Your task to perform on an android device: make emails show in primary in the gmail app Image 0: 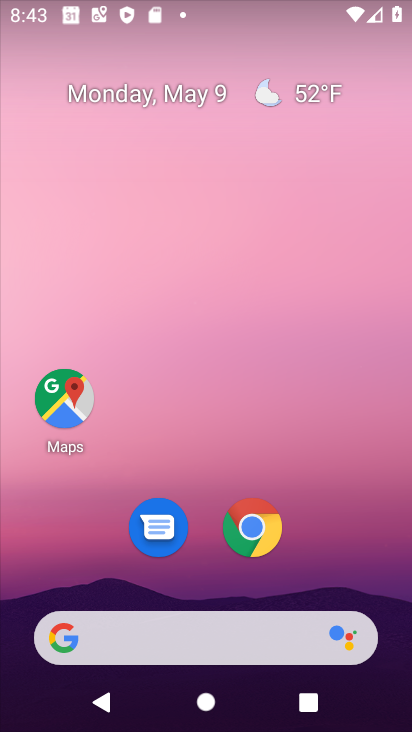
Step 0: drag from (202, 567) to (219, 77)
Your task to perform on an android device: make emails show in primary in the gmail app Image 1: 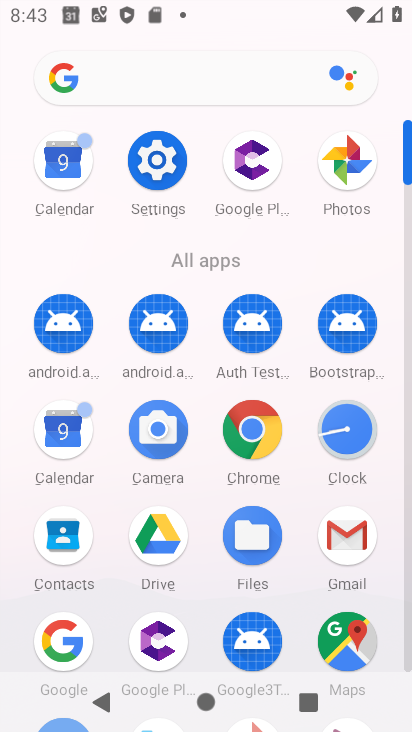
Step 1: click (352, 534)
Your task to perform on an android device: make emails show in primary in the gmail app Image 2: 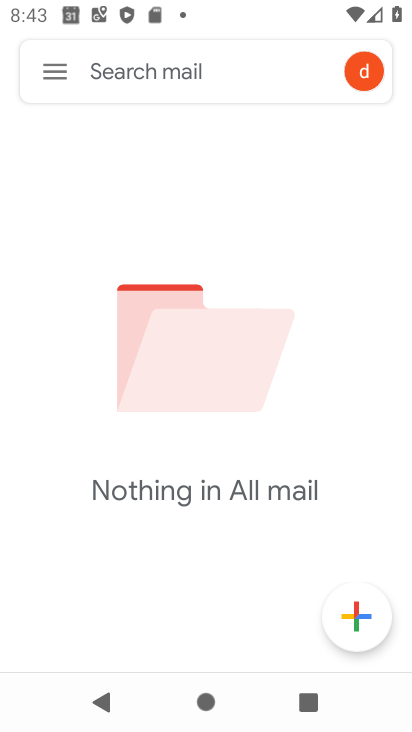
Step 2: click (52, 78)
Your task to perform on an android device: make emails show in primary in the gmail app Image 3: 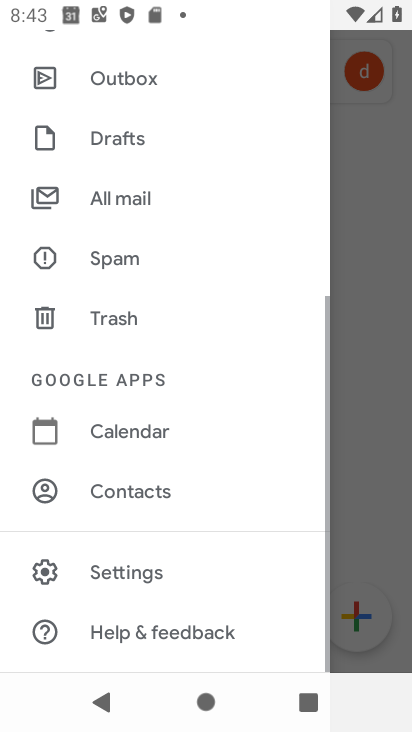
Step 3: click (146, 556)
Your task to perform on an android device: make emails show in primary in the gmail app Image 4: 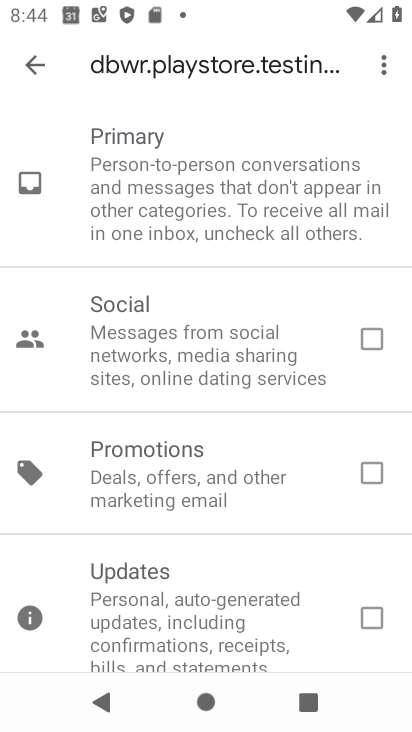
Step 4: task complete